Your task to perform on an android device: empty trash in the gmail app Image 0: 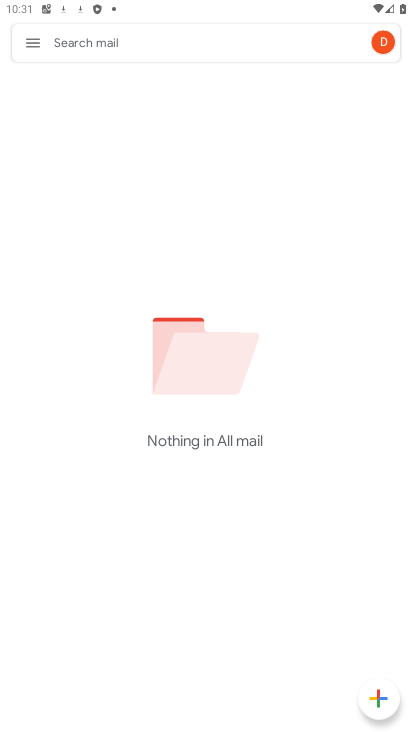
Step 0: press home button
Your task to perform on an android device: empty trash in the gmail app Image 1: 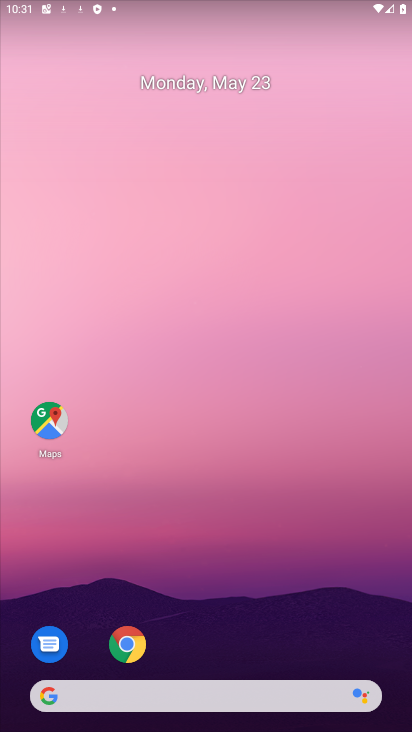
Step 1: drag from (246, 720) to (269, 124)
Your task to perform on an android device: empty trash in the gmail app Image 2: 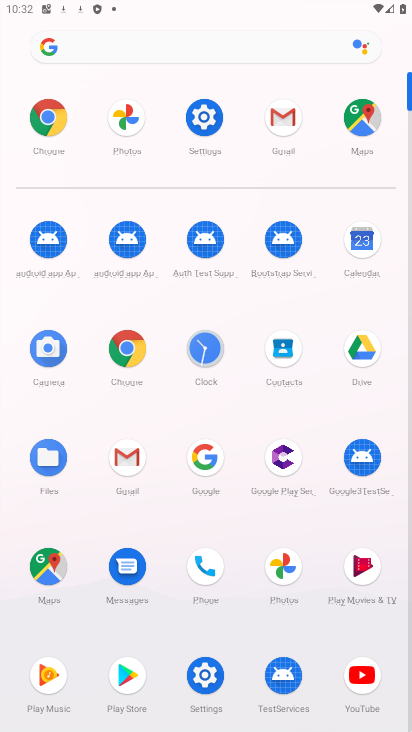
Step 2: click (278, 111)
Your task to perform on an android device: empty trash in the gmail app Image 3: 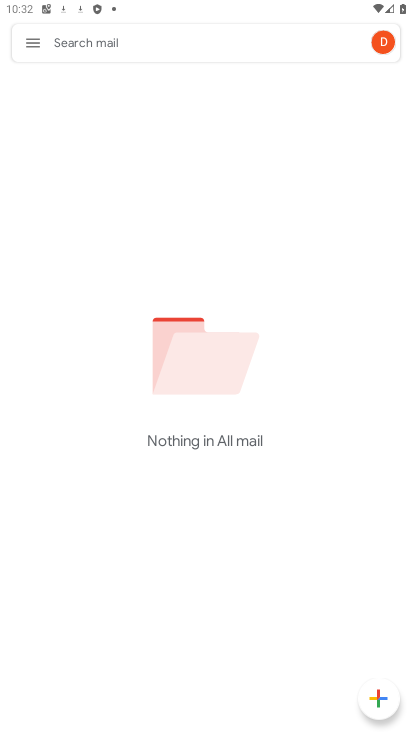
Step 3: click (46, 45)
Your task to perform on an android device: empty trash in the gmail app Image 4: 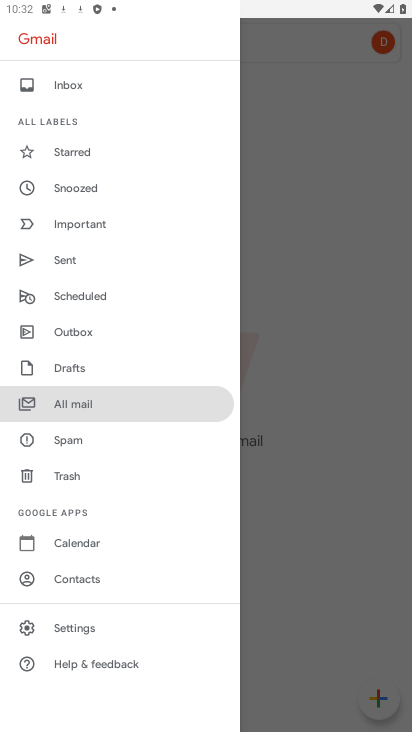
Step 4: click (65, 472)
Your task to perform on an android device: empty trash in the gmail app Image 5: 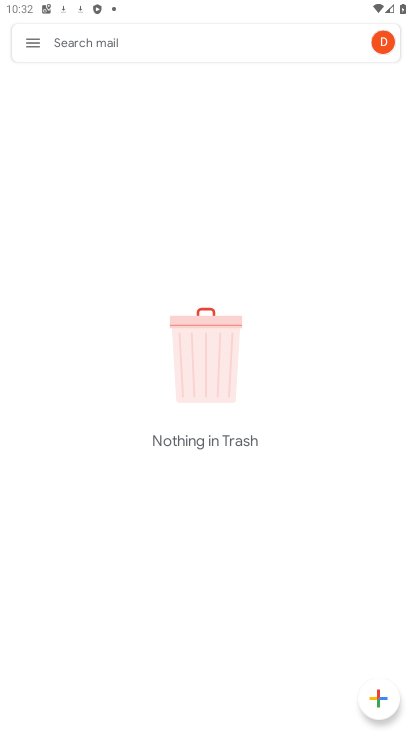
Step 5: task complete